Your task to perform on an android device: Open settings Image 0: 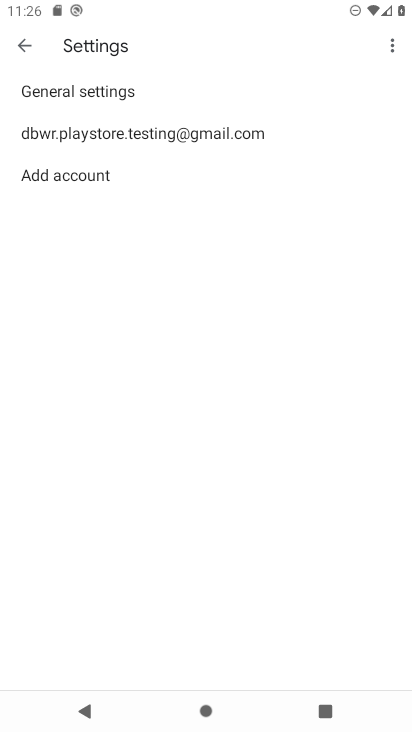
Step 0: press home button
Your task to perform on an android device: Open settings Image 1: 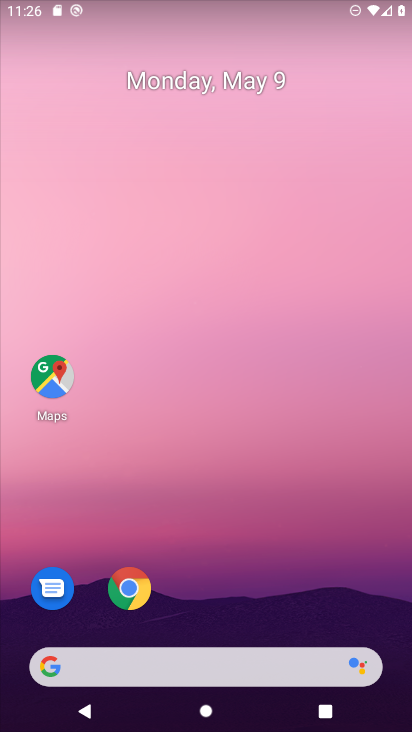
Step 1: drag from (268, 598) to (266, 147)
Your task to perform on an android device: Open settings Image 2: 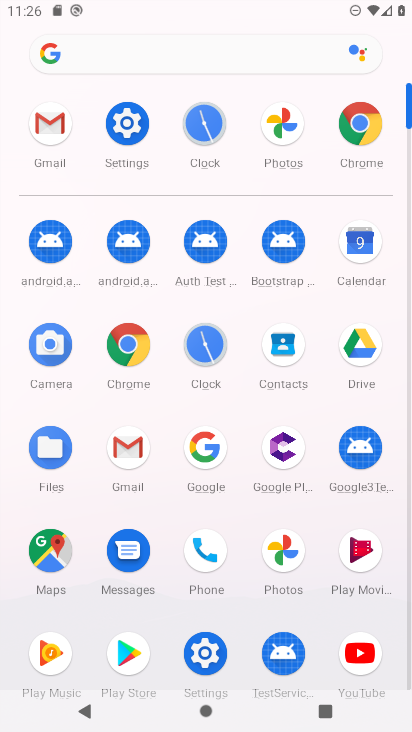
Step 2: click (126, 150)
Your task to perform on an android device: Open settings Image 3: 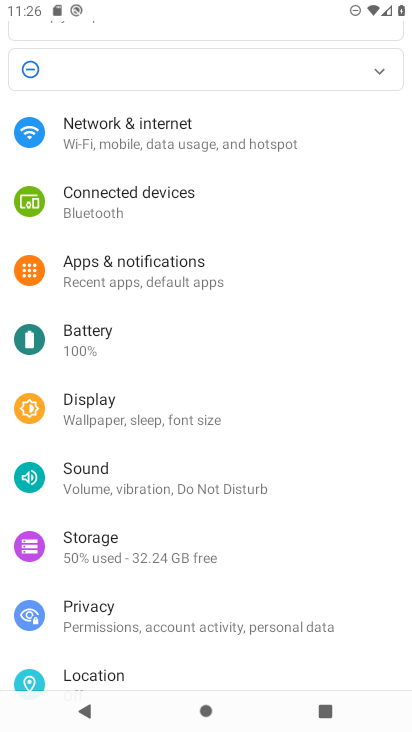
Step 3: task complete